Your task to perform on an android device: Show me recent news Image 0: 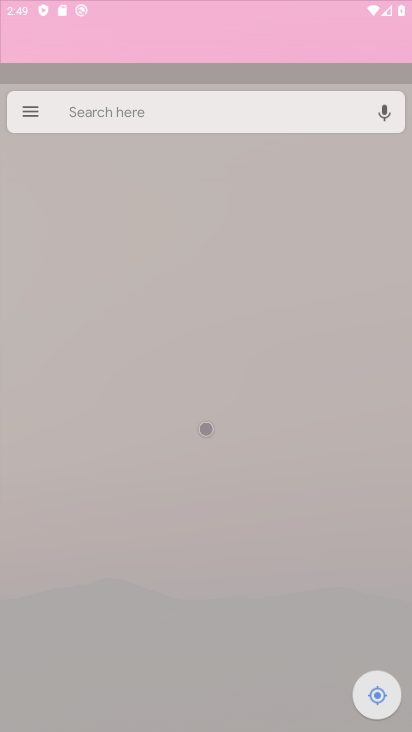
Step 0: click (232, 50)
Your task to perform on an android device: Show me recent news Image 1: 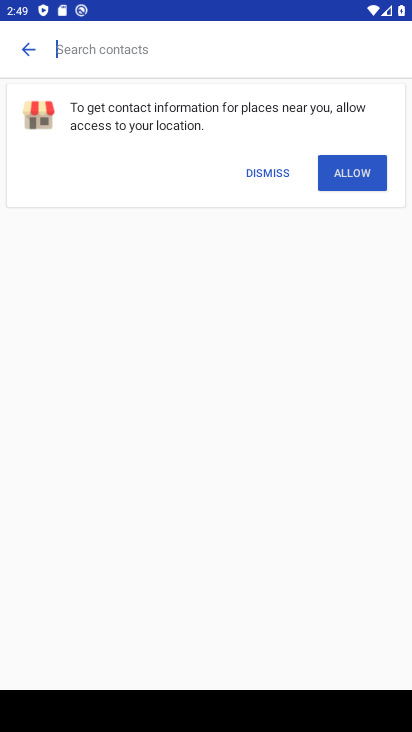
Step 1: press back button
Your task to perform on an android device: Show me recent news Image 2: 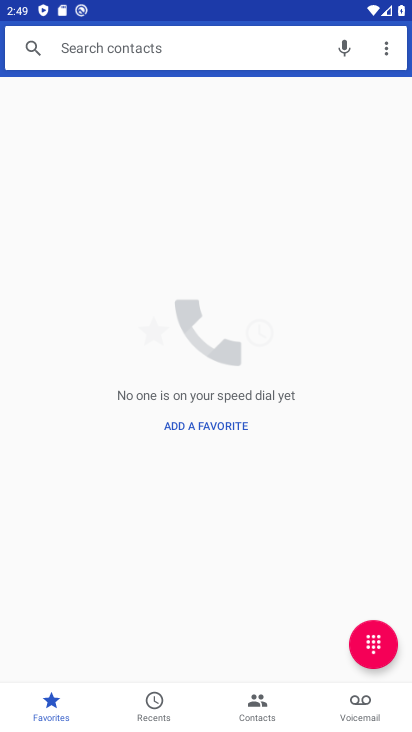
Step 2: press back button
Your task to perform on an android device: Show me recent news Image 3: 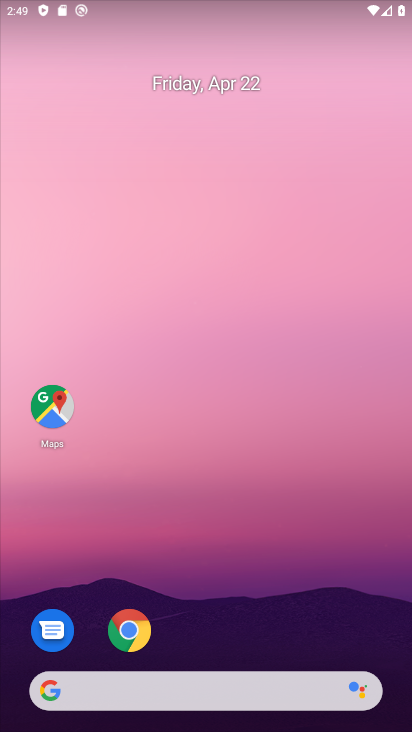
Step 3: click (195, 694)
Your task to perform on an android device: Show me recent news Image 4: 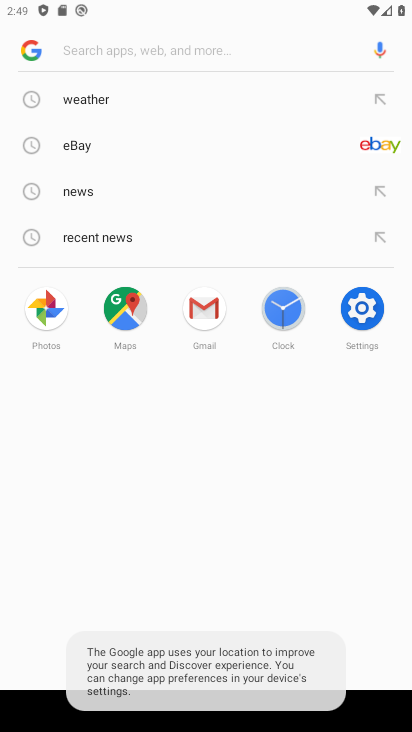
Step 4: click (82, 181)
Your task to perform on an android device: Show me recent news Image 5: 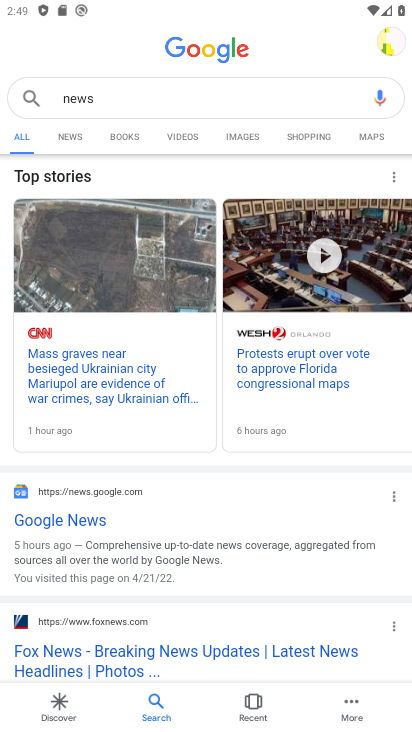
Step 5: task complete